Your task to perform on an android device: allow cookies in the chrome app Image 0: 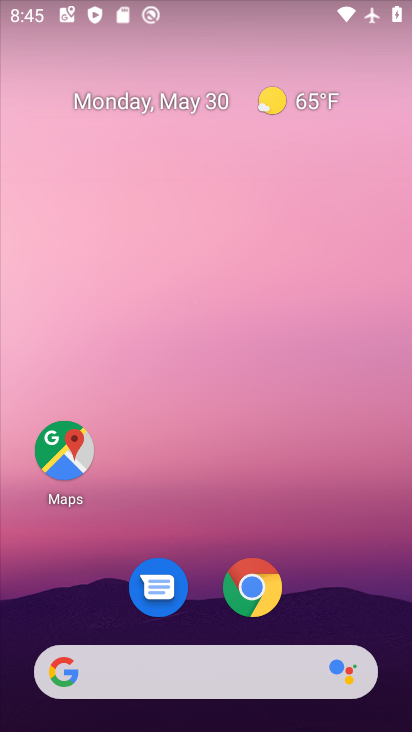
Step 0: click (253, 602)
Your task to perform on an android device: allow cookies in the chrome app Image 1: 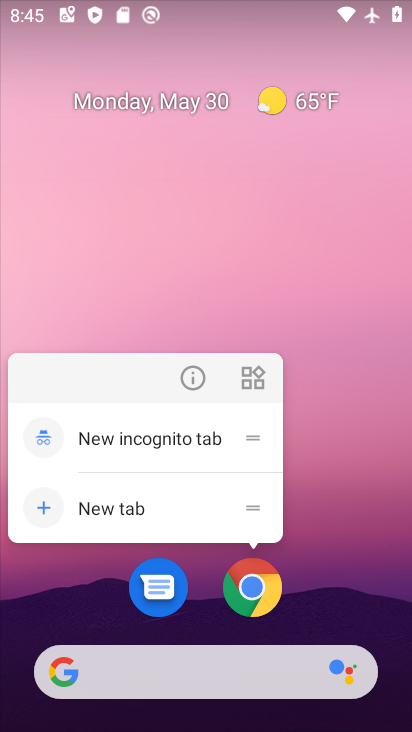
Step 1: click (257, 594)
Your task to perform on an android device: allow cookies in the chrome app Image 2: 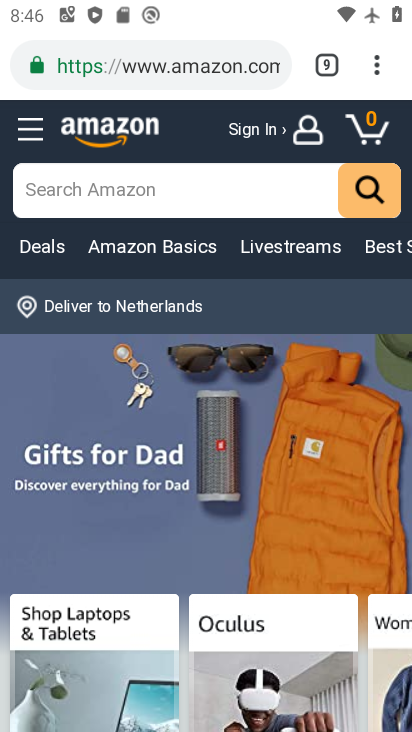
Step 2: drag from (379, 71) to (241, 642)
Your task to perform on an android device: allow cookies in the chrome app Image 3: 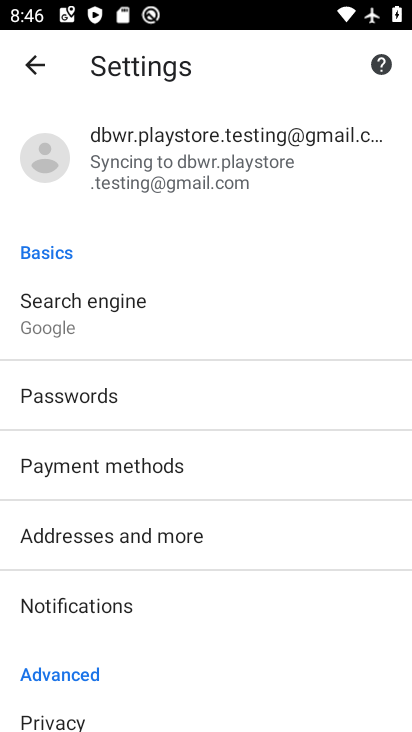
Step 3: drag from (218, 622) to (304, 148)
Your task to perform on an android device: allow cookies in the chrome app Image 4: 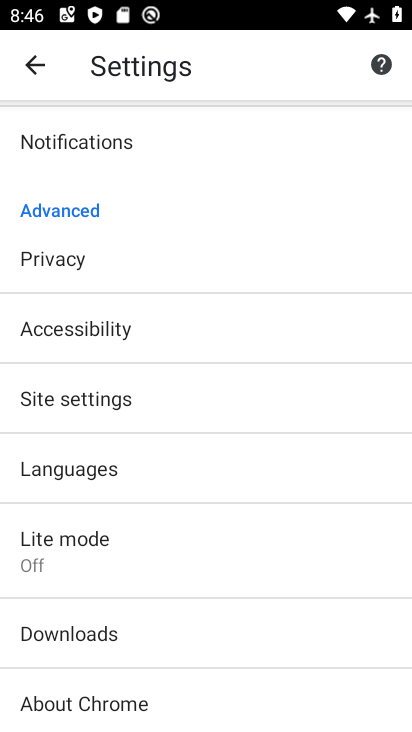
Step 4: click (107, 398)
Your task to perform on an android device: allow cookies in the chrome app Image 5: 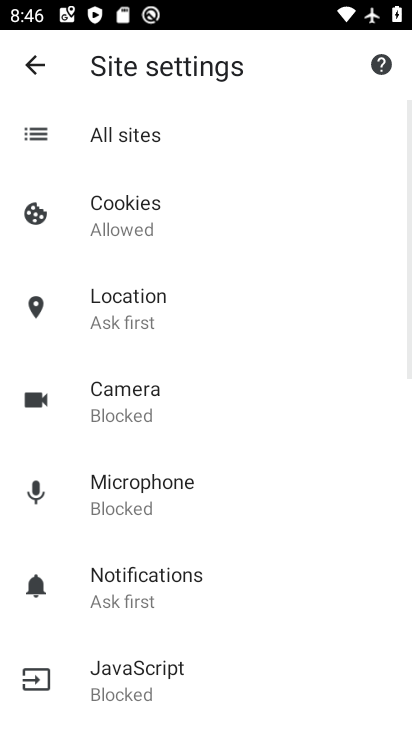
Step 5: click (138, 217)
Your task to perform on an android device: allow cookies in the chrome app Image 6: 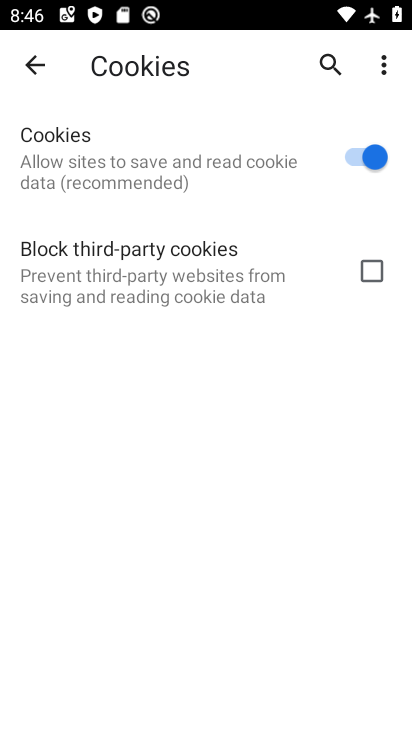
Step 6: task complete